Your task to perform on an android device: Go to Maps Image 0: 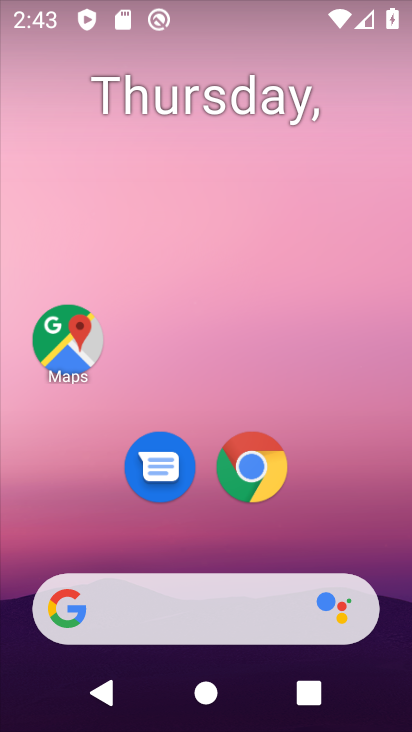
Step 0: click (97, 338)
Your task to perform on an android device: Go to Maps Image 1: 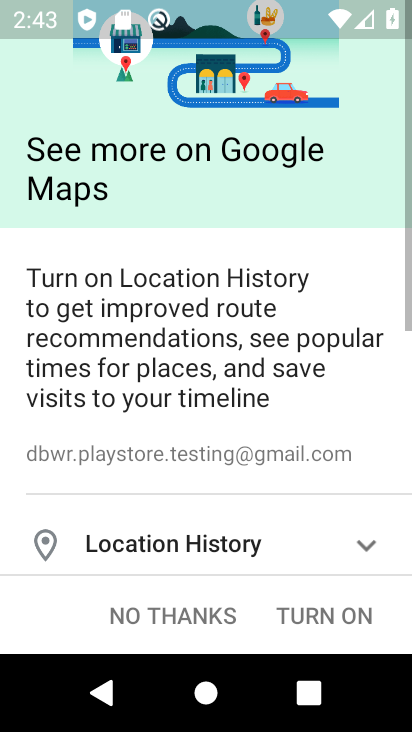
Step 1: task complete